Your task to perform on an android device: open the mobile data screen to see how much data has been used Image 0: 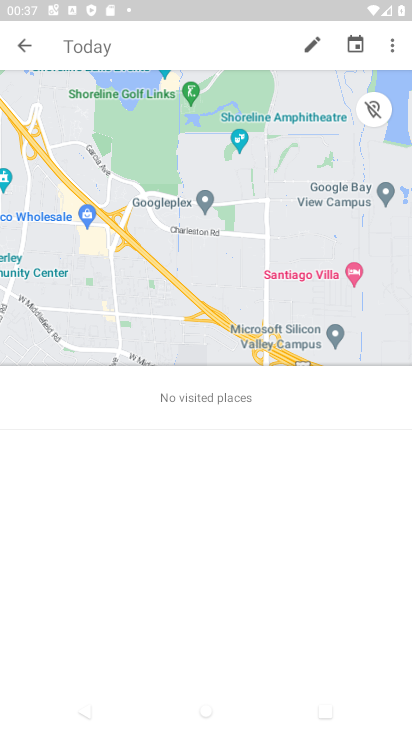
Step 0: drag from (253, 11) to (184, 607)
Your task to perform on an android device: open the mobile data screen to see how much data has been used Image 1: 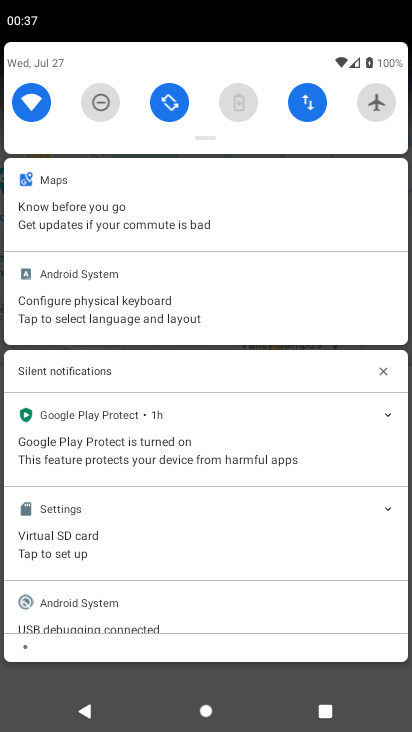
Step 1: click (299, 100)
Your task to perform on an android device: open the mobile data screen to see how much data has been used Image 2: 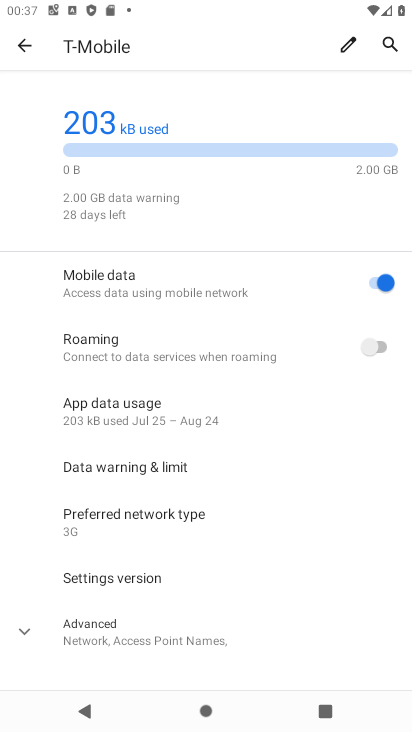
Step 2: task complete